Your task to perform on an android device: Open calendar and show me the first week of next month Image 0: 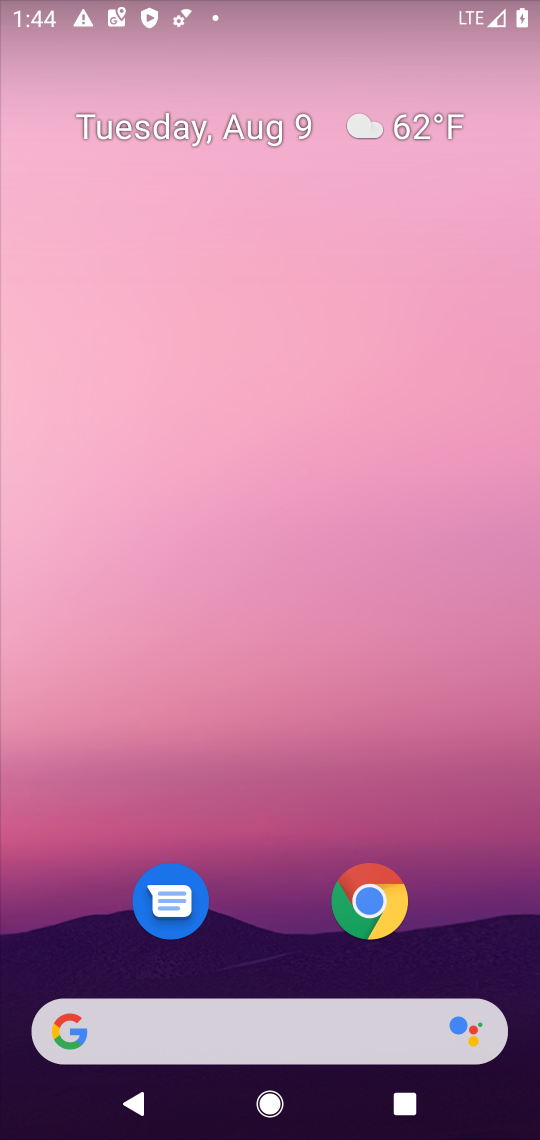
Step 0: press home button
Your task to perform on an android device: Open calendar and show me the first week of next month Image 1: 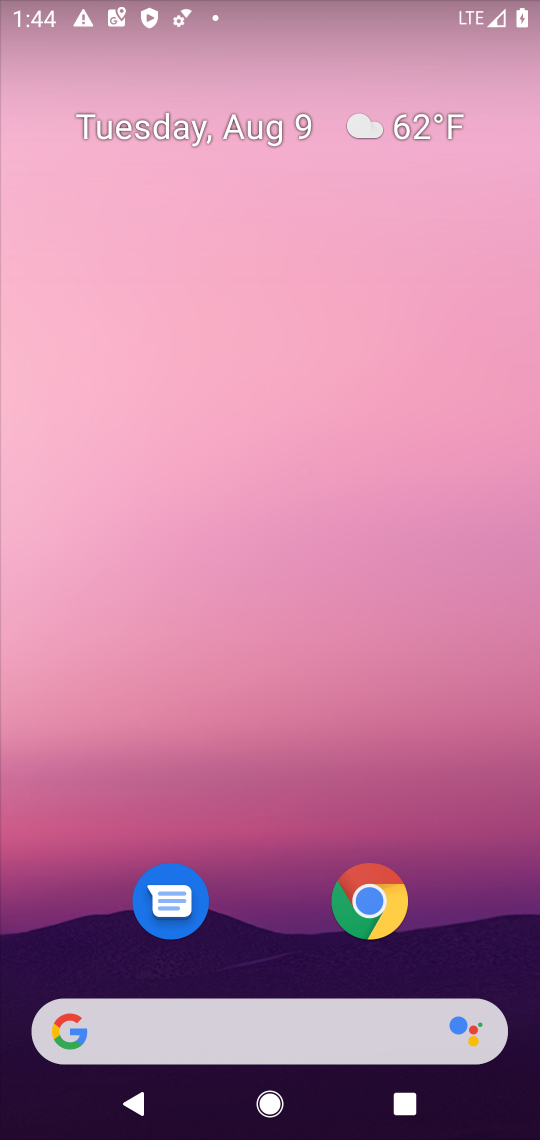
Step 1: drag from (518, 980) to (446, 174)
Your task to perform on an android device: Open calendar and show me the first week of next month Image 2: 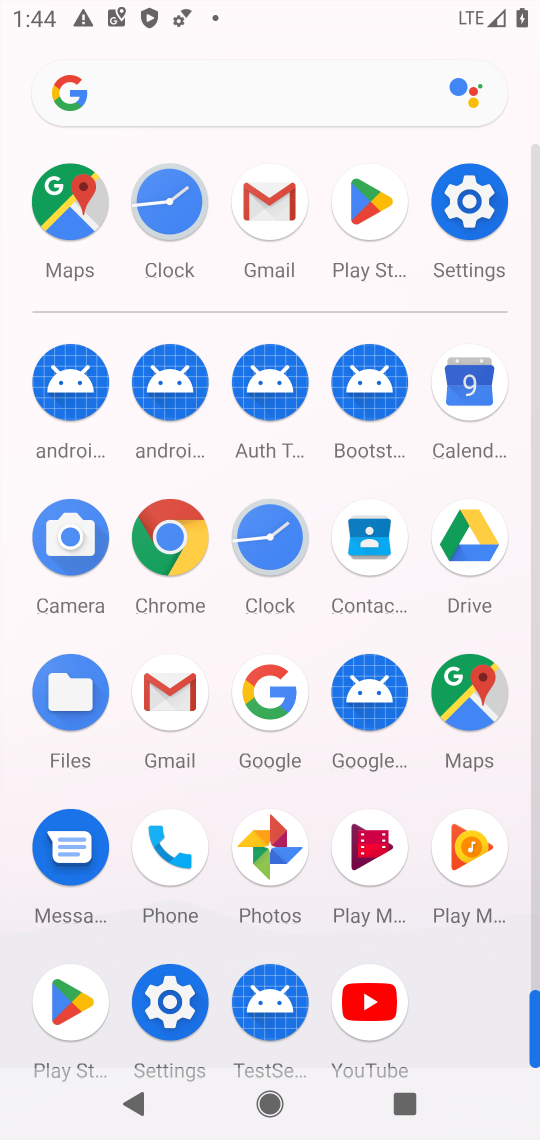
Step 2: click (471, 384)
Your task to perform on an android device: Open calendar and show me the first week of next month Image 3: 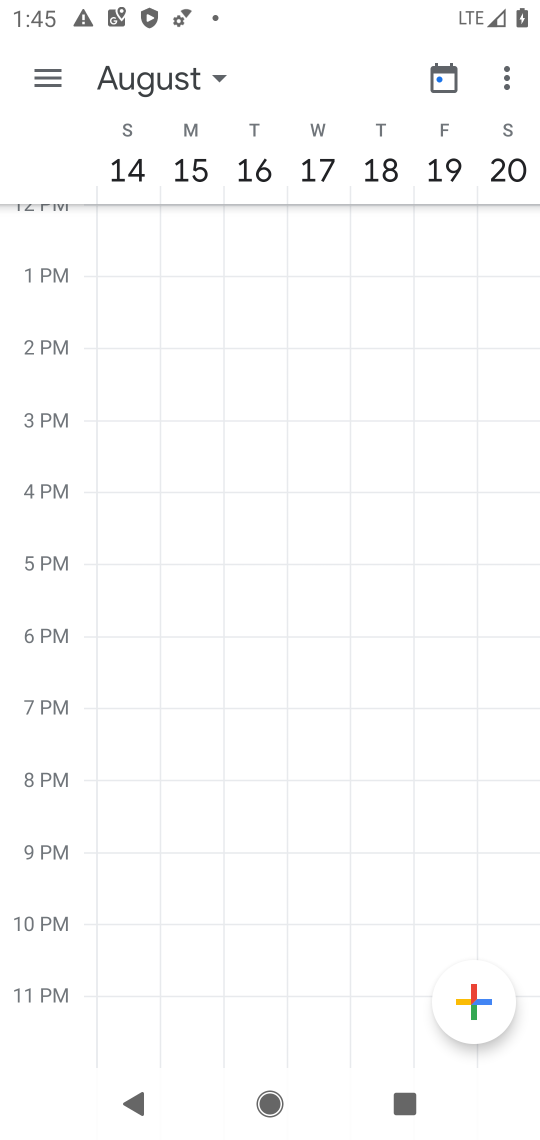
Step 3: click (209, 76)
Your task to perform on an android device: Open calendar and show me the first week of next month Image 4: 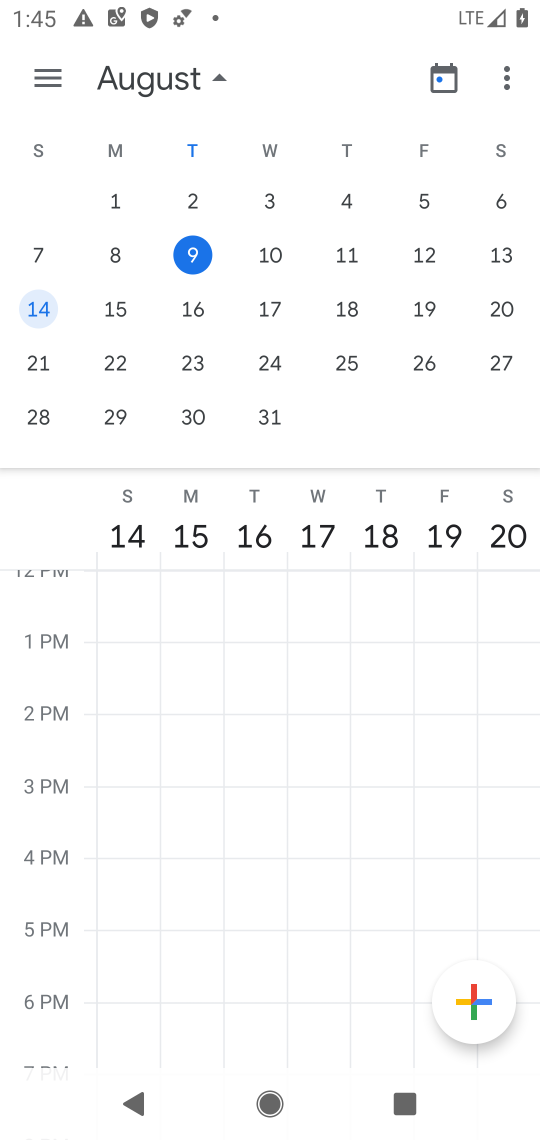
Step 4: drag from (486, 295) to (22, 266)
Your task to perform on an android device: Open calendar and show me the first week of next month Image 5: 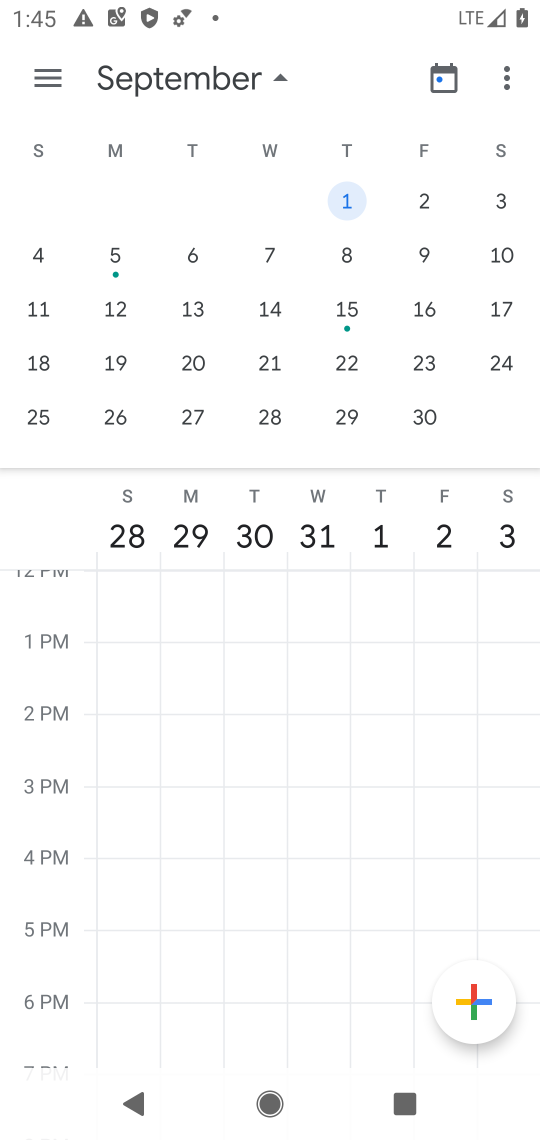
Step 5: click (32, 249)
Your task to perform on an android device: Open calendar and show me the first week of next month Image 6: 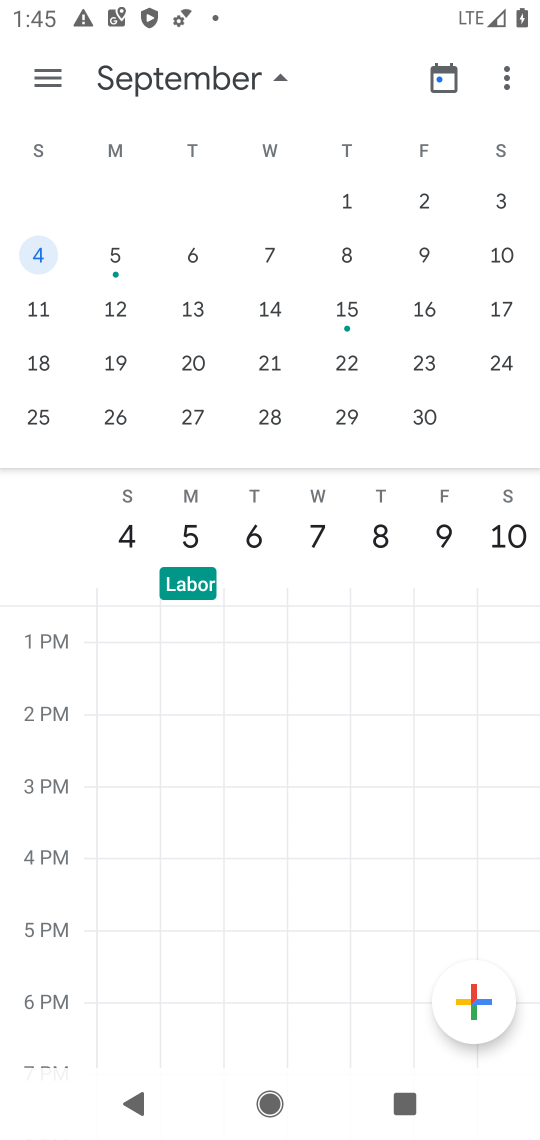
Step 6: task complete